Your task to perform on an android device: Open eBay Image 0: 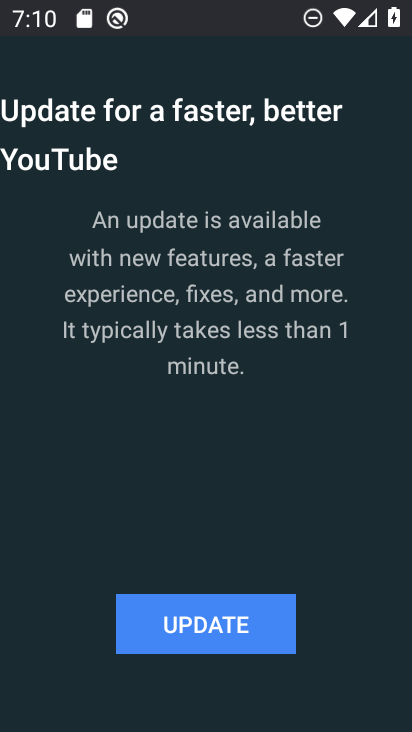
Step 0: press home button
Your task to perform on an android device: Open eBay Image 1: 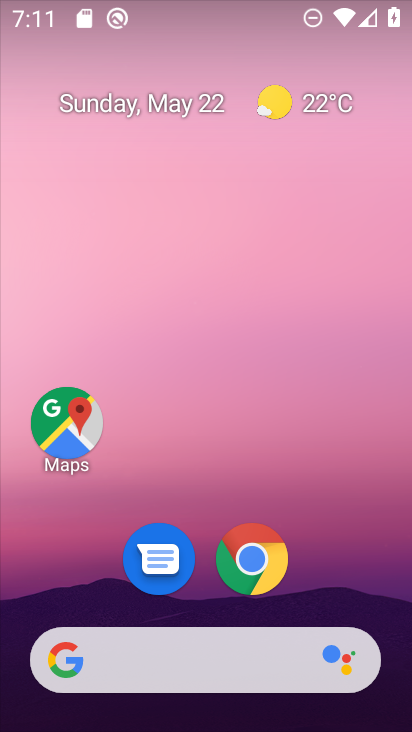
Step 1: drag from (285, 684) to (262, 137)
Your task to perform on an android device: Open eBay Image 2: 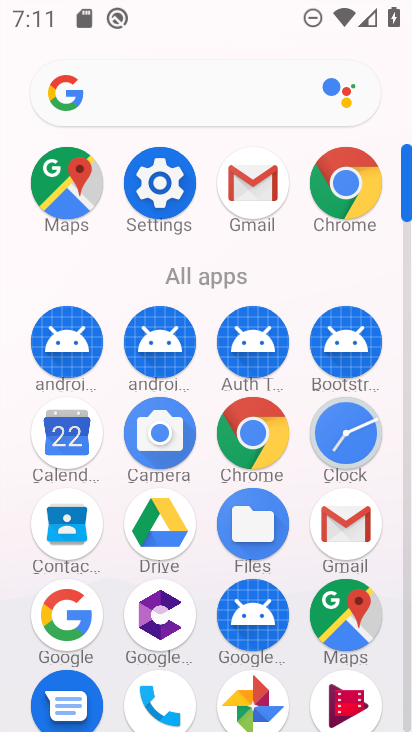
Step 2: click (338, 191)
Your task to perform on an android device: Open eBay Image 3: 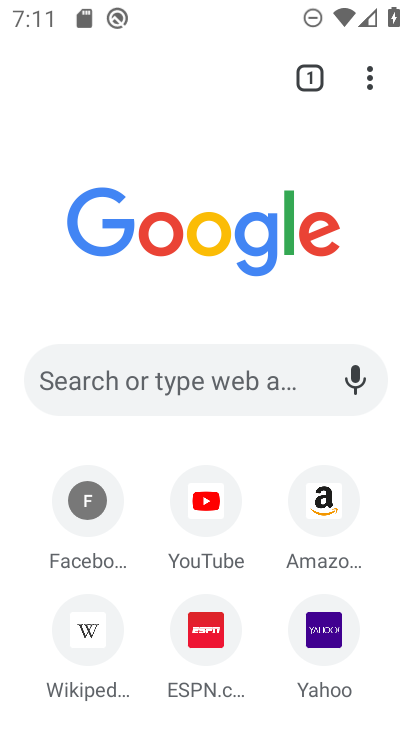
Step 3: drag from (156, 601) to (175, 465)
Your task to perform on an android device: Open eBay Image 4: 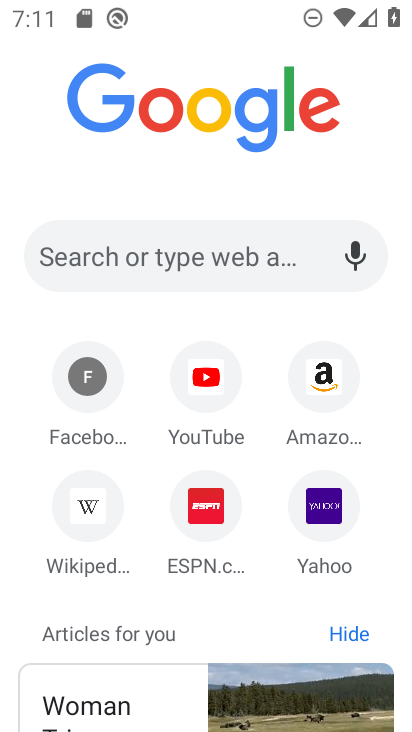
Step 4: click (126, 255)
Your task to perform on an android device: Open eBay Image 5: 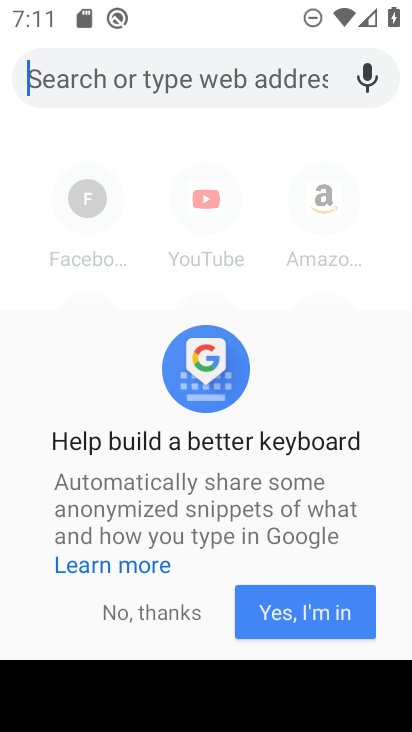
Step 5: click (157, 622)
Your task to perform on an android device: Open eBay Image 6: 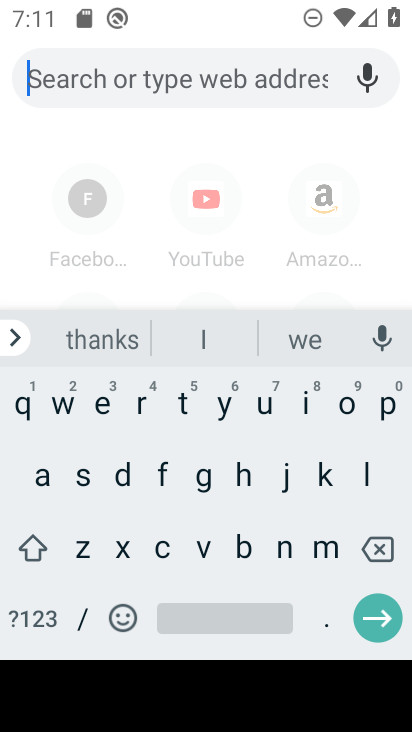
Step 6: click (105, 404)
Your task to perform on an android device: Open eBay Image 7: 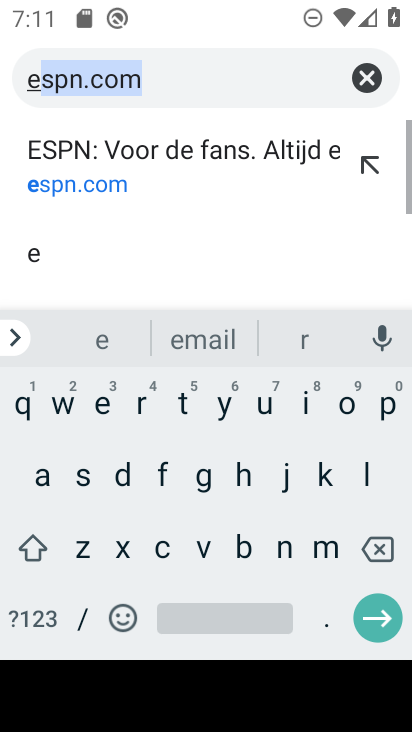
Step 7: click (240, 545)
Your task to perform on an android device: Open eBay Image 8: 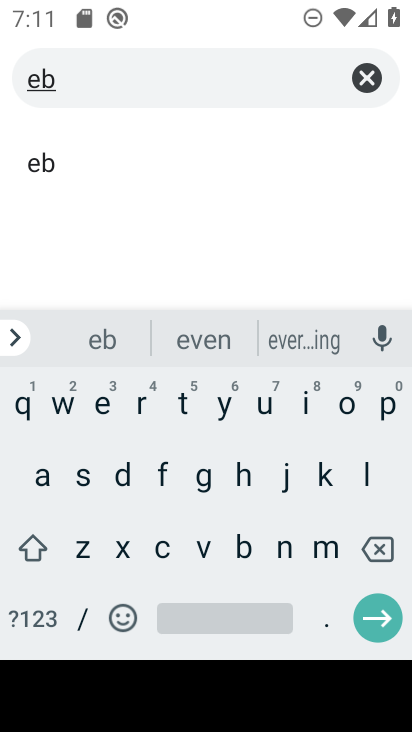
Step 8: click (46, 475)
Your task to perform on an android device: Open eBay Image 9: 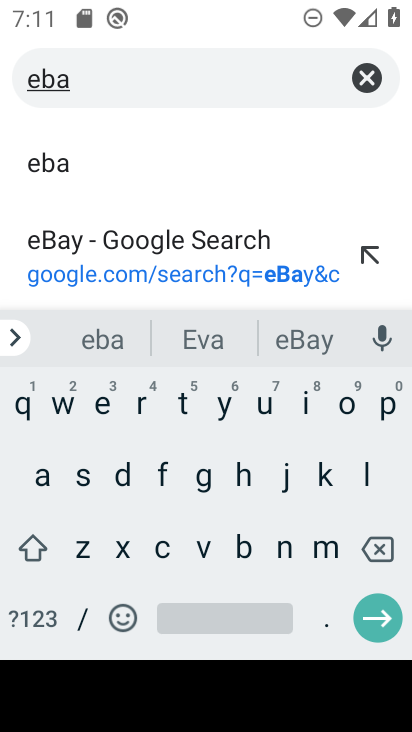
Step 9: click (223, 407)
Your task to perform on an android device: Open eBay Image 10: 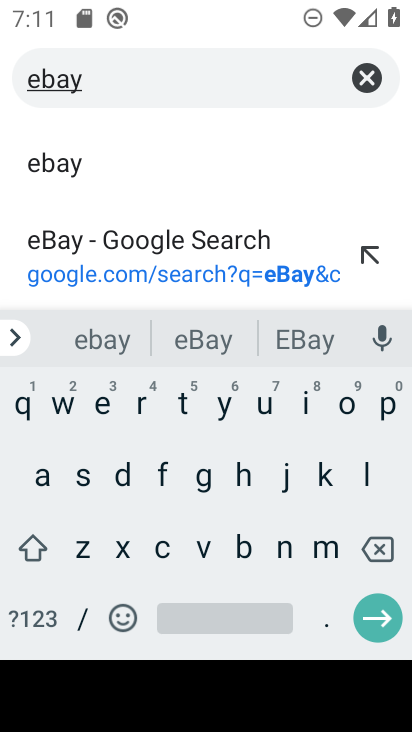
Step 10: click (103, 173)
Your task to perform on an android device: Open eBay Image 11: 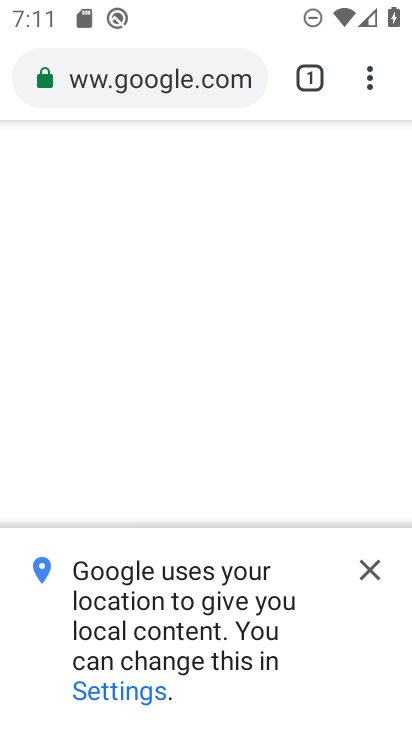
Step 11: click (357, 568)
Your task to perform on an android device: Open eBay Image 12: 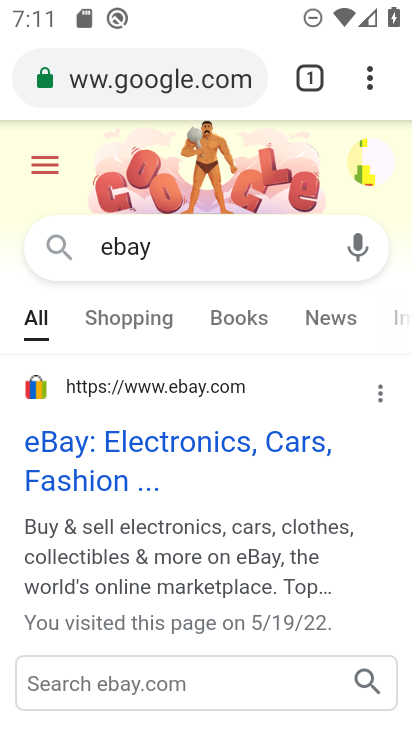
Step 12: click (151, 461)
Your task to perform on an android device: Open eBay Image 13: 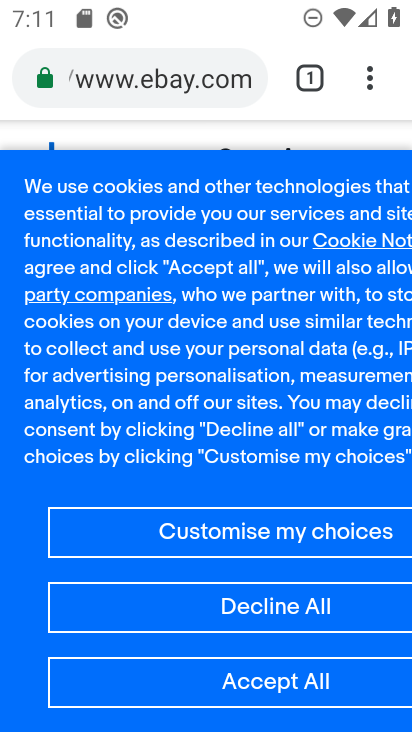
Step 13: task complete